Your task to perform on an android device: change your default location settings in chrome Image 0: 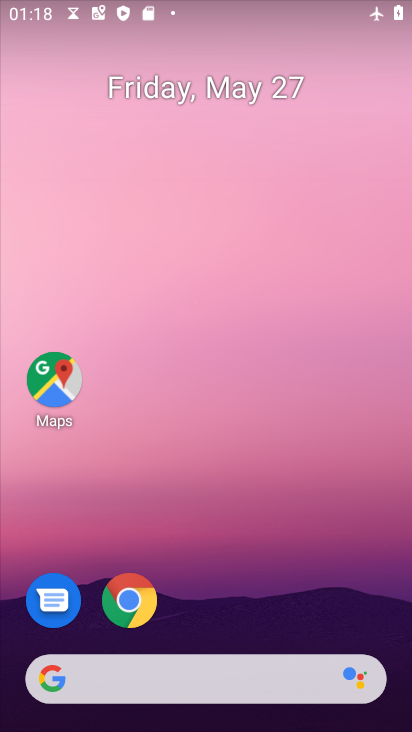
Step 0: click (138, 591)
Your task to perform on an android device: change your default location settings in chrome Image 1: 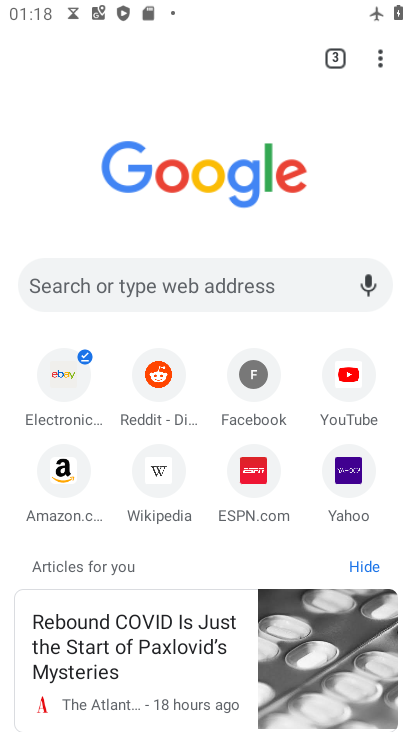
Step 1: click (365, 57)
Your task to perform on an android device: change your default location settings in chrome Image 2: 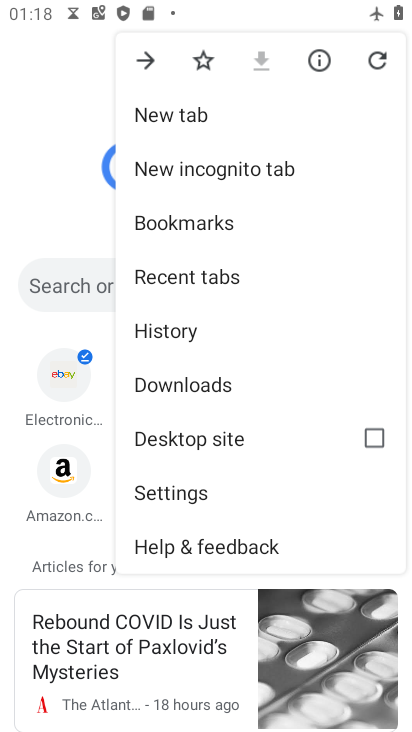
Step 2: click (200, 484)
Your task to perform on an android device: change your default location settings in chrome Image 3: 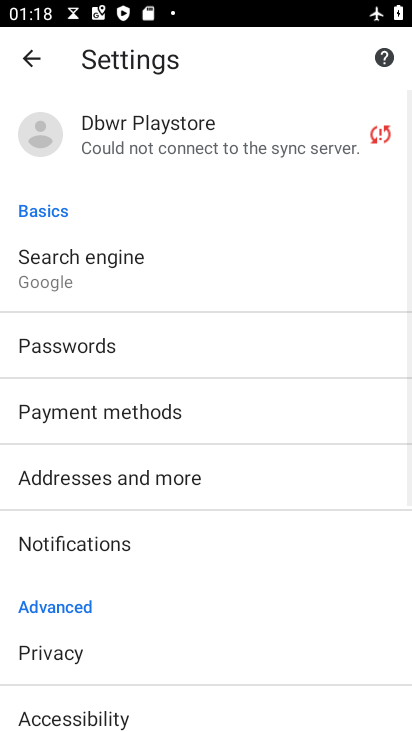
Step 3: drag from (215, 587) to (210, 170)
Your task to perform on an android device: change your default location settings in chrome Image 4: 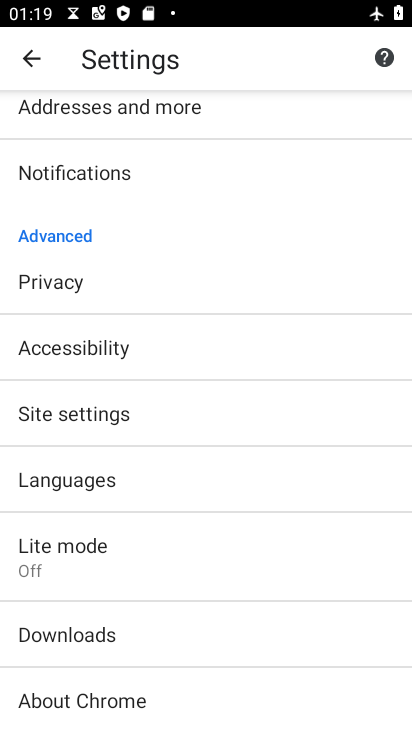
Step 4: drag from (146, 610) to (147, 135)
Your task to perform on an android device: change your default location settings in chrome Image 5: 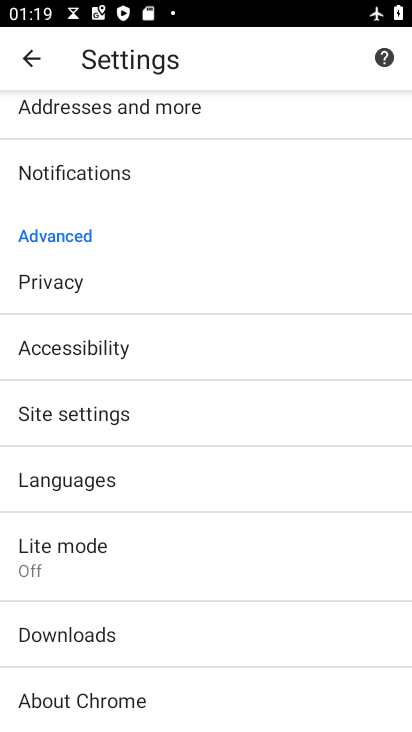
Step 5: click (111, 703)
Your task to perform on an android device: change your default location settings in chrome Image 6: 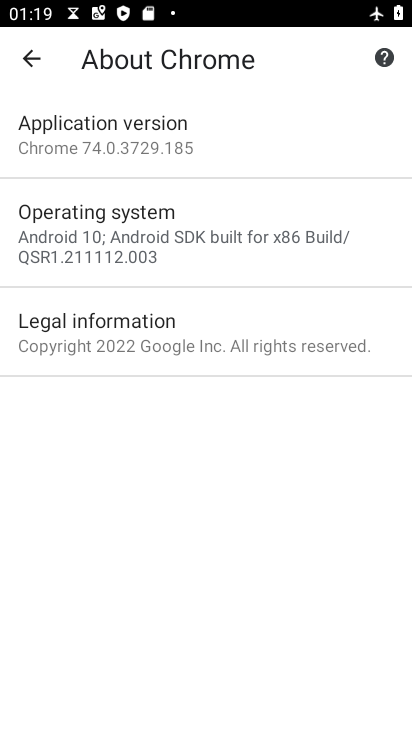
Step 6: press back button
Your task to perform on an android device: change your default location settings in chrome Image 7: 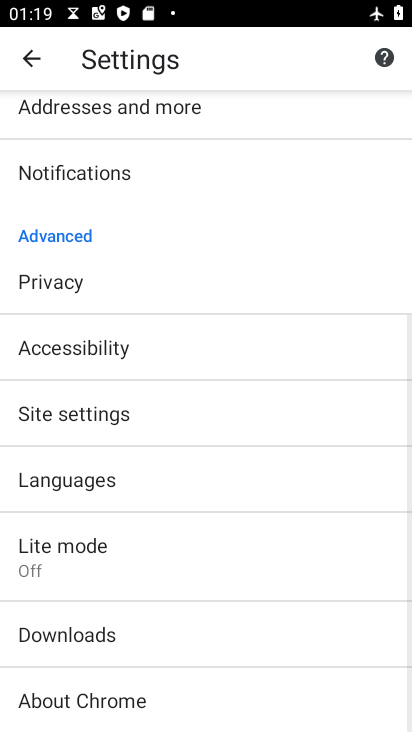
Step 7: drag from (119, 176) to (98, 545)
Your task to perform on an android device: change your default location settings in chrome Image 8: 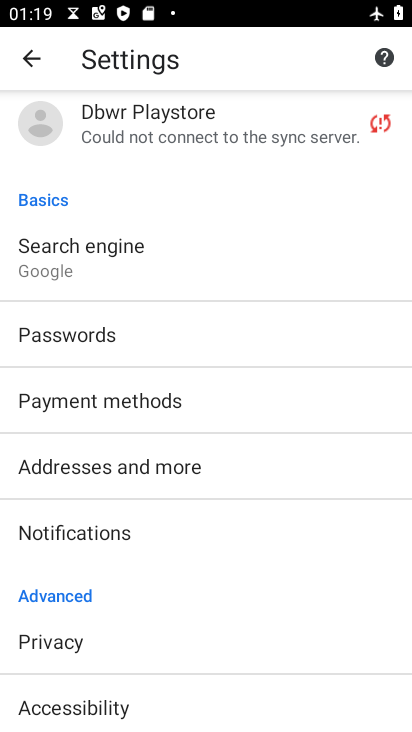
Step 8: click (129, 632)
Your task to perform on an android device: change your default location settings in chrome Image 9: 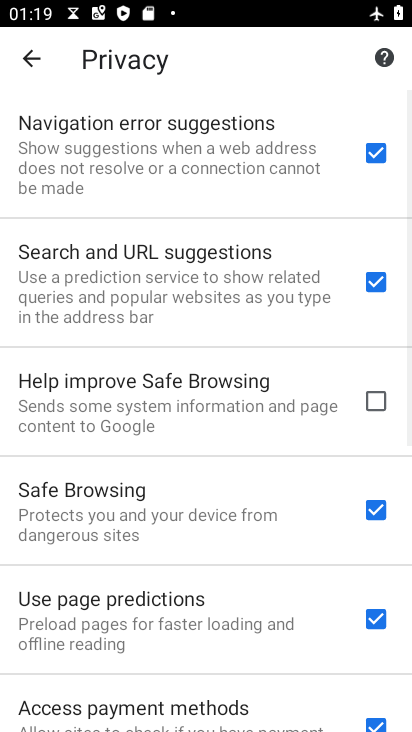
Step 9: drag from (136, 595) to (192, 16)
Your task to perform on an android device: change your default location settings in chrome Image 10: 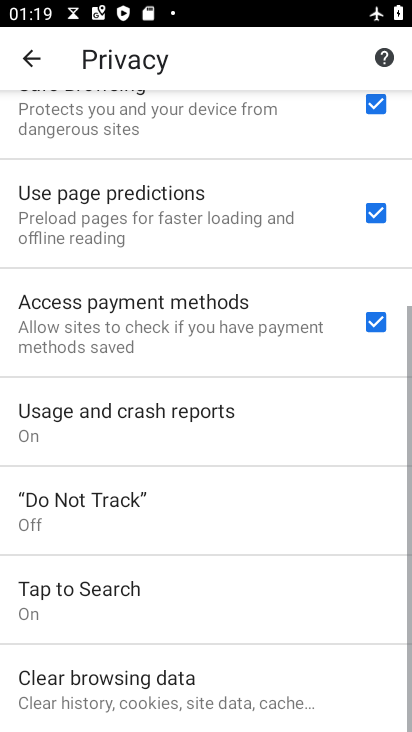
Step 10: drag from (180, 595) to (307, 127)
Your task to perform on an android device: change your default location settings in chrome Image 11: 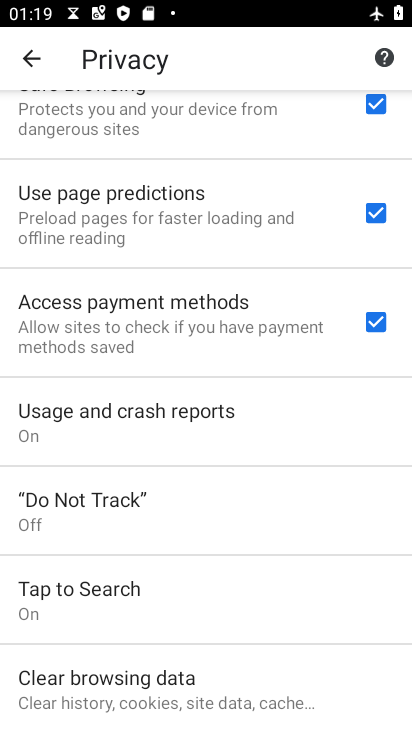
Step 11: press back button
Your task to perform on an android device: change your default location settings in chrome Image 12: 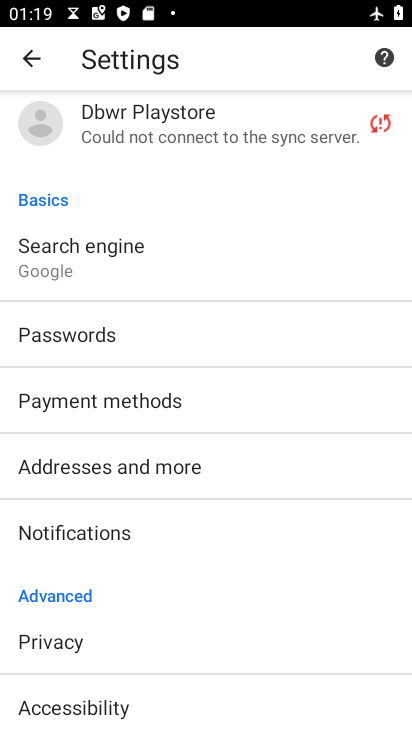
Step 12: click (235, 698)
Your task to perform on an android device: change your default location settings in chrome Image 13: 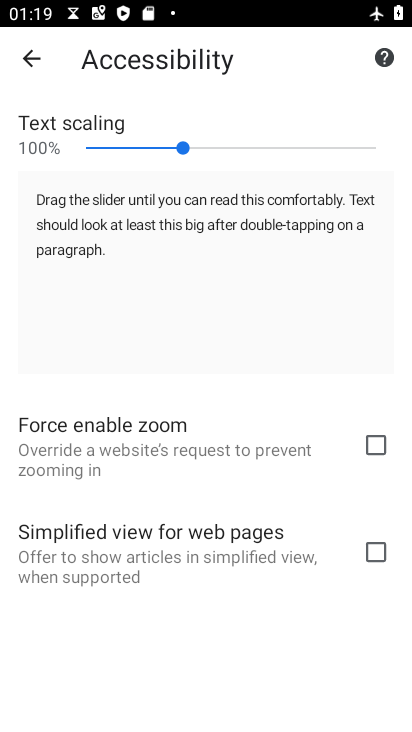
Step 13: press back button
Your task to perform on an android device: change your default location settings in chrome Image 14: 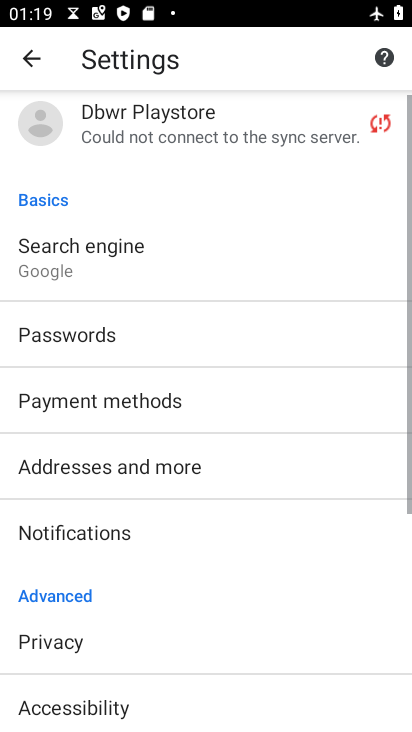
Step 14: drag from (178, 641) to (236, 13)
Your task to perform on an android device: change your default location settings in chrome Image 15: 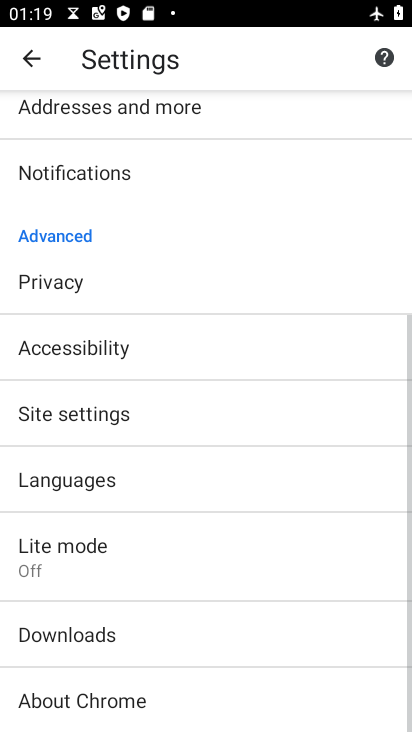
Step 15: click (207, 401)
Your task to perform on an android device: change your default location settings in chrome Image 16: 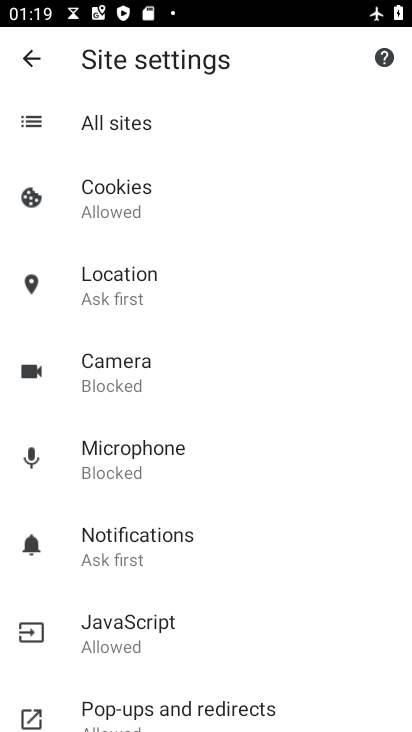
Step 16: click (151, 295)
Your task to perform on an android device: change your default location settings in chrome Image 17: 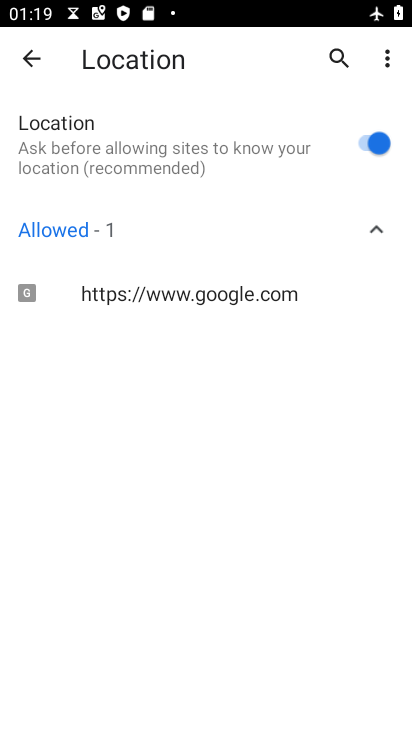
Step 17: click (374, 148)
Your task to perform on an android device: change your default location settings in chrome Image 18: 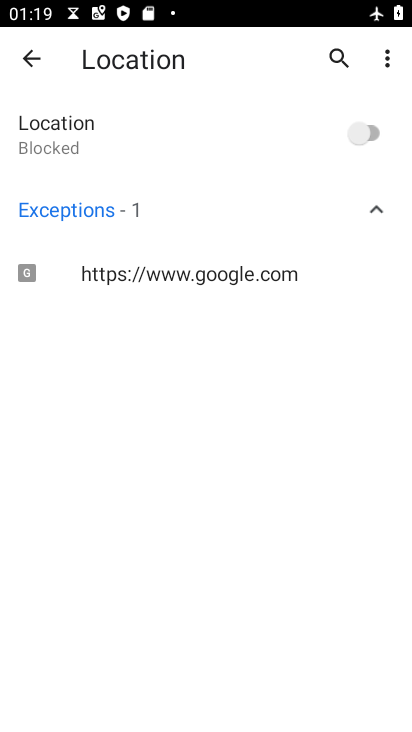
Step 18: task complete